Your task to perform on an android device: Do I have any events this weekend? Image 0: 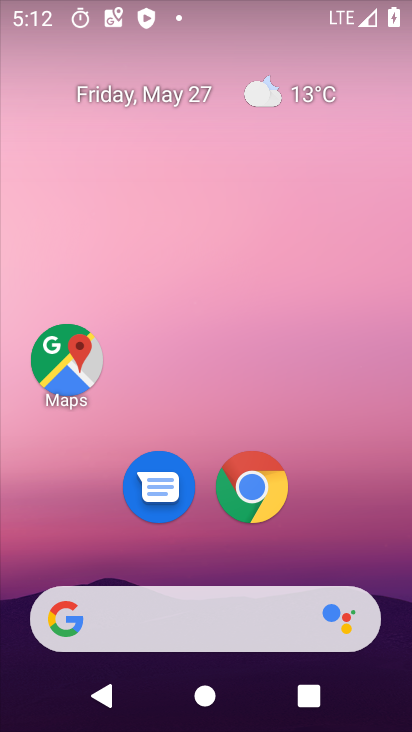
Step 0: drag from (353, 412) to (352, 123)
Your task to perform on an android device: Do I have any events this weekend? Image 1: 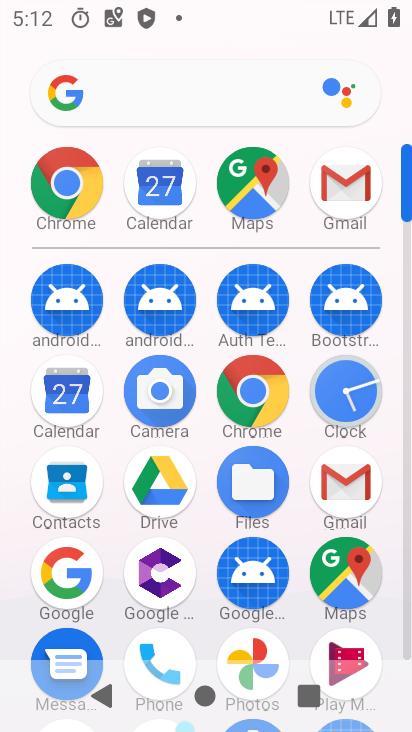
Step 1: click (74, 402)
Your task to perform on an android device: Do I have any events this weekend? Image 2: 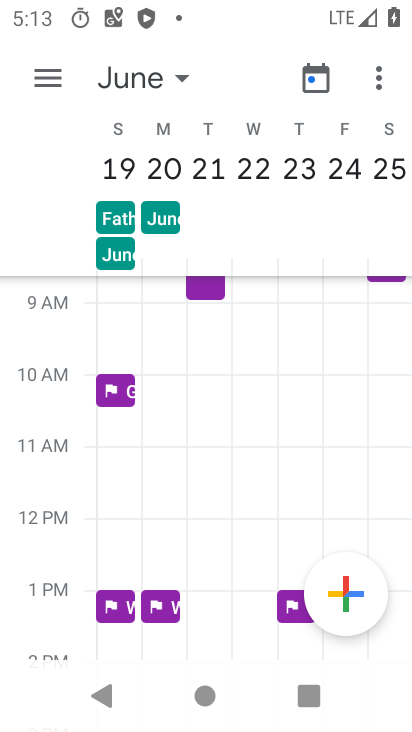
Step 2: click (133, 64)
Your task to perform on an android device: Do I have any events this weekend? Image 3: 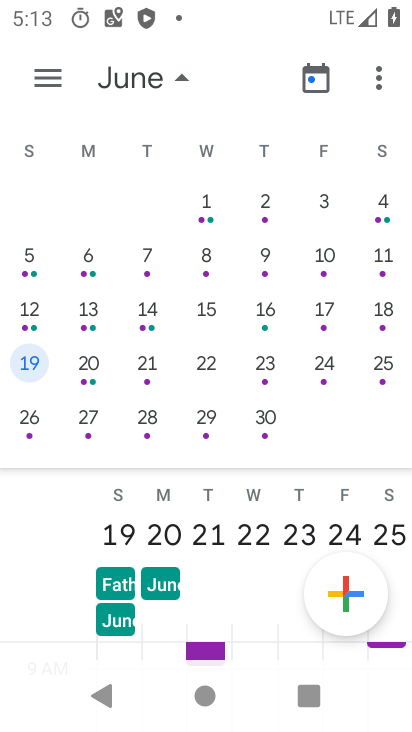
Step 3: drag from (84, 326) to (411, 221)
Your task to perform on an android device: Do I have any events this weekend? Image 4: 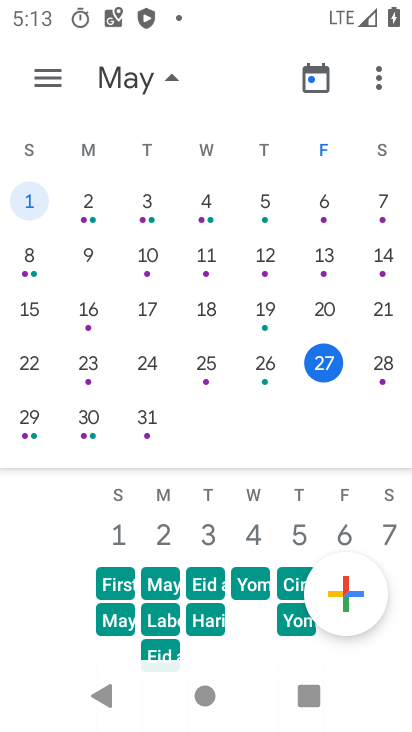
Step 4: drag from (293, 458) to (285, 137)
Your task to perform on an android device: Do I have any events this weekend? Image 5: 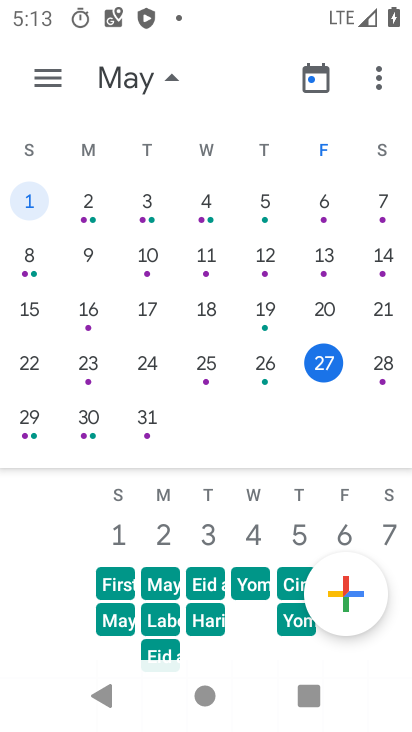
Step 5: drag from (271, 383) to (301, 29)
Your task to perform on an android device: Do I have any events this weekend? Image 6: 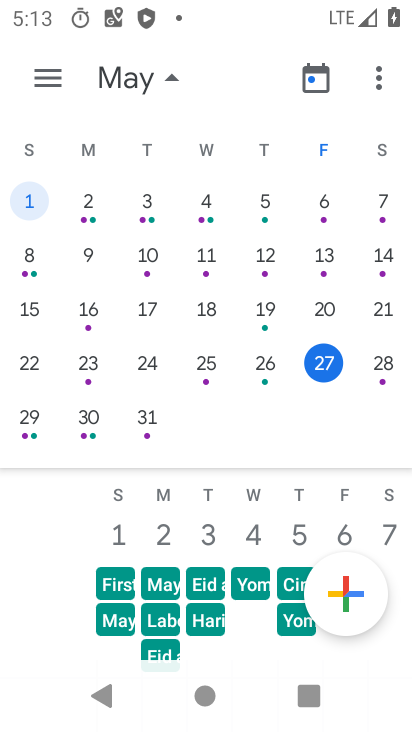
Step 6: drag from (257, 486) to (283, 118)
Your task to perform on an android device: Do I have any events this weekend? Image 7: 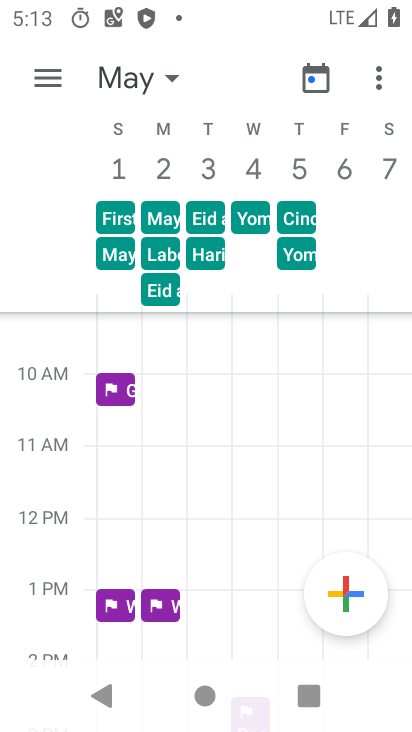
Step 7: click (42, 67)
Your task to perform on an android device: Do I have any events this weekend? Image 8: 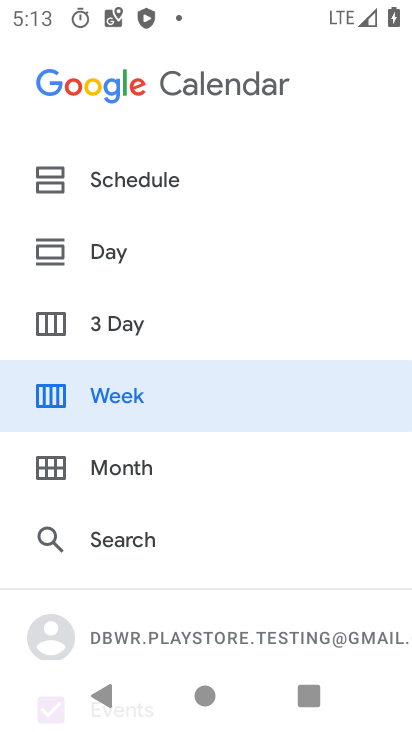
Step 8: click (129, 346)
Your task to perform on an android device: Do I have any events this weekend? Image 9: 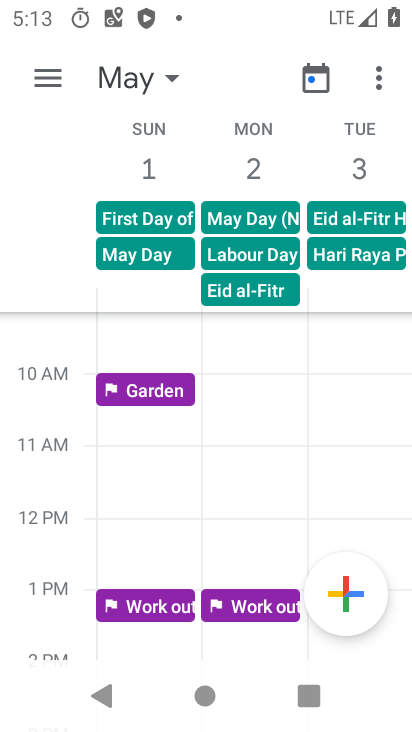
Step 9: drag from (361, 139) to (139, 140)
Your task to perform on an android device: Do I have any events this weekend? Image 10: 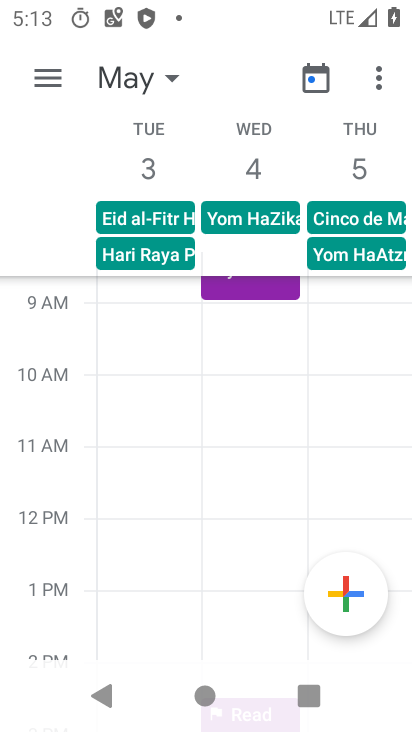
Step 10: drag from (132, 139) to (403, 153)
Your task to perform on an android device: Do I have any events this weekend? Image 11: 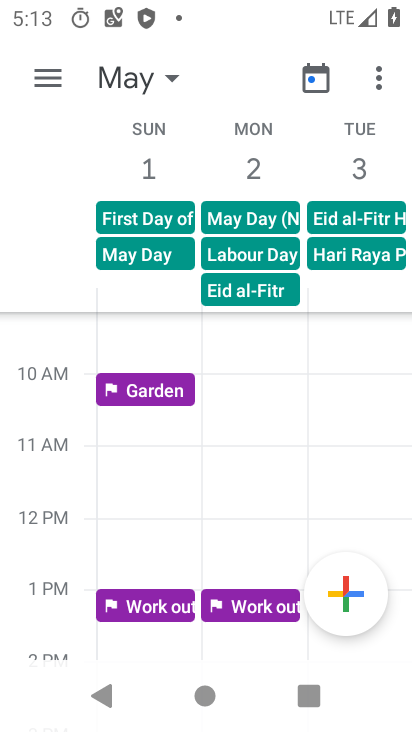
Step 11: click (174, 79)
Your task to perform on an android device: Do I have any events this weekend? Image 12: 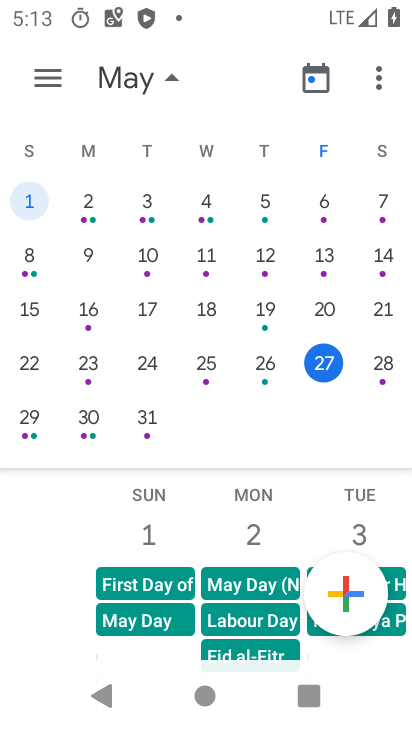
Step 12: click (382, 363)
Your task to perform on an android device: Do I have any events this weekend? Image 13: 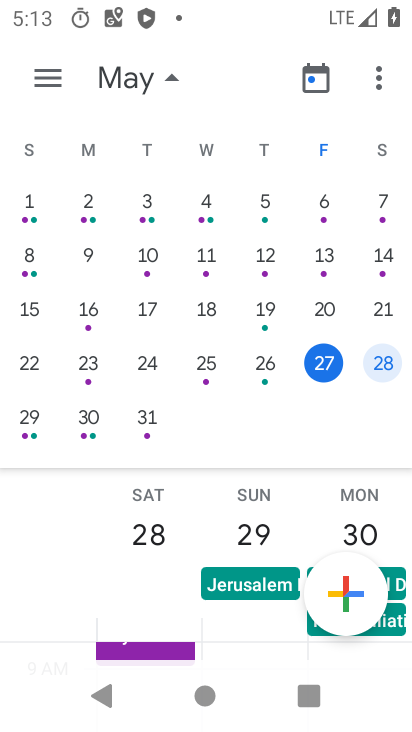
Step 13: task complete